Your task to perform on an android device: toggle wifi Image 0: 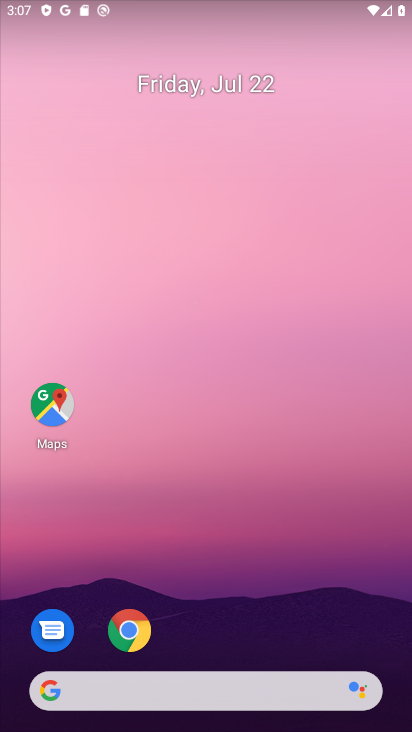
Step 0: click (366, 34)
Your task to perform on an android device: toggle wifi Image 1: 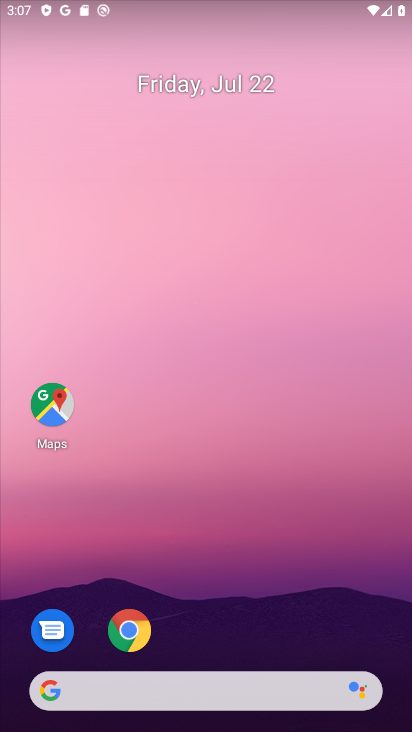
Step 1: drag from (177, 692) to (200, 150)
Your task to perform on an android device: toggle wifi Image 2: 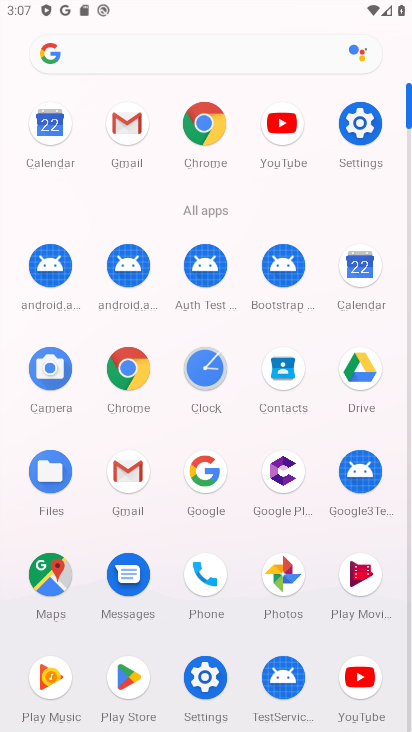
Step 2: click (350, 128)
Your task to perform on an android device: toggle wifi Image 3: 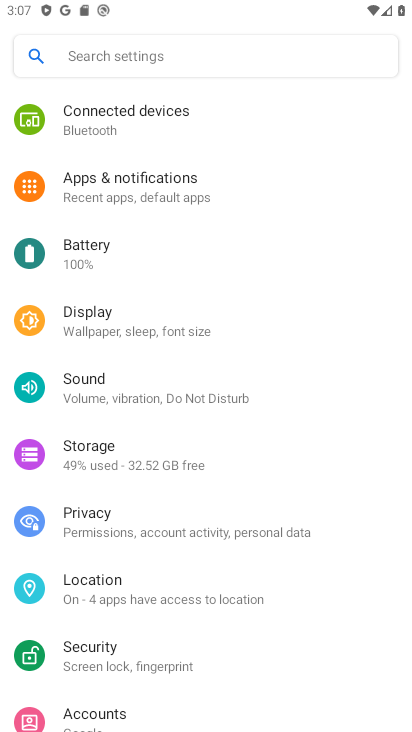
Step 3: click (144, 119)
Your task to perform on an android device: toggle wifi Image 4: 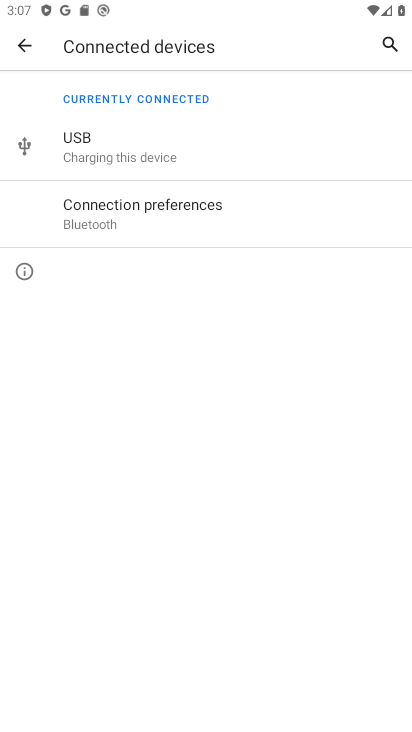
Step 4: click (25, 37)
Your task to perform on an android device: toggle wifi Image 5: 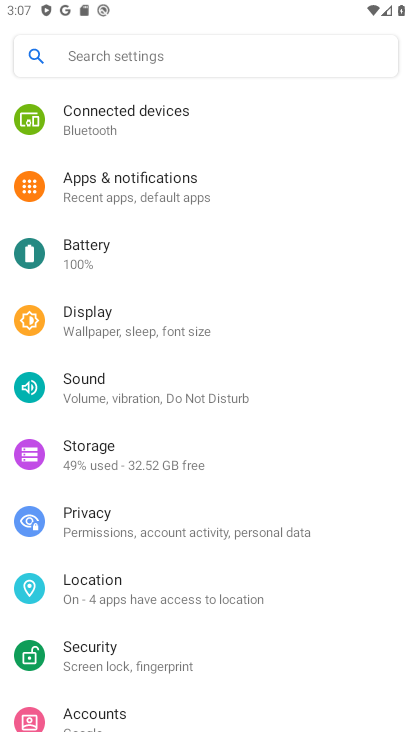
Step 5: drag from (145, 121) to (170, 354)
Your task to perform on an android device: toggle wifi Image 6: 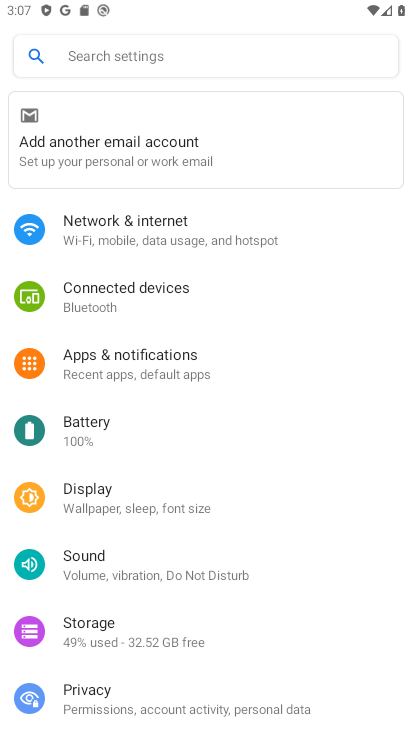
Step 6: click (139, 229)
Your task to perform on an android device: toggle wifi Image 7: 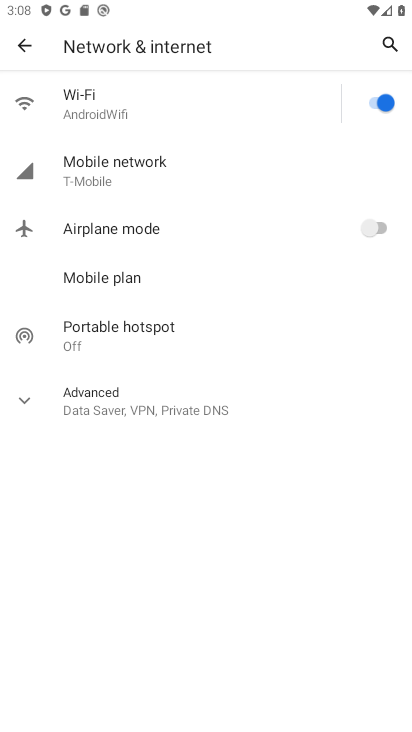
Step 7: click (379, 99)
Your task to perform on an android device: toggle wifi Image 8: 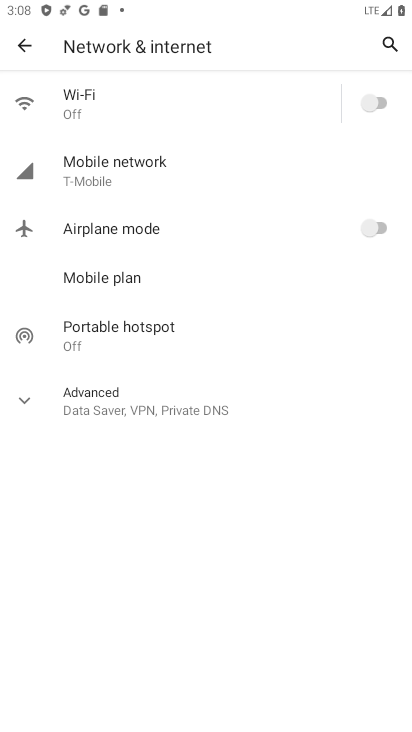
Step 8: task complete